Your task to perform on an android device: change the clock display to analog Image 0: 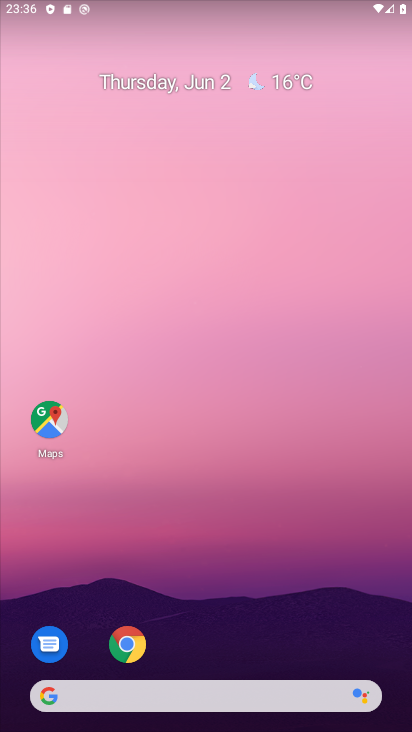
Step 0: drag from (200, 648) to (244, 185)
Your task to perform on an android device: change the clock display to analog Image 1: 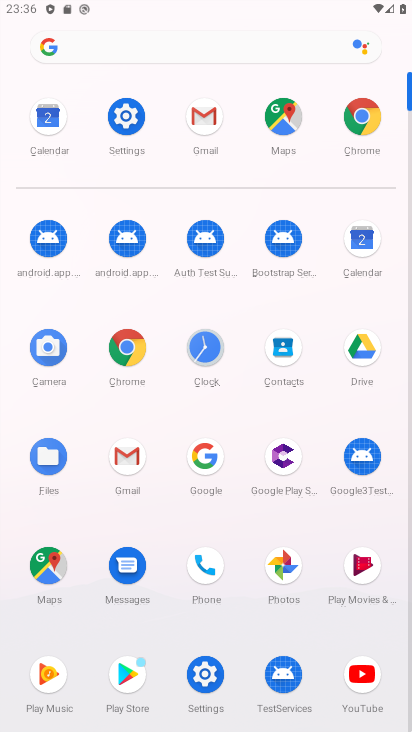
Step 1: click (208, 346)
Your task to perform on an android device: change the clock display to analog Image 2: 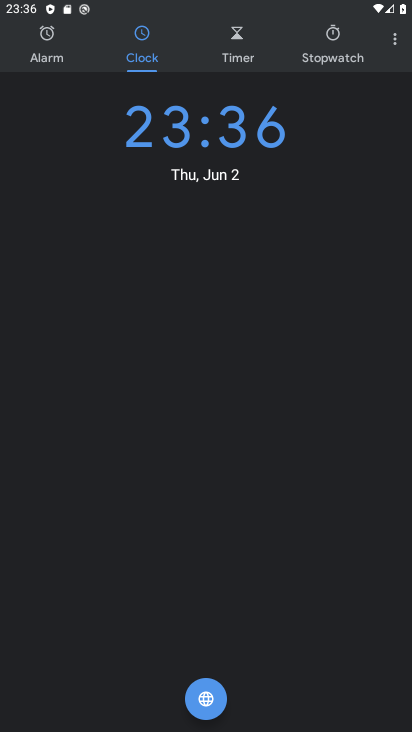
Step 2: click (397, 40)
Your task to perform on an android device: change the clock display to analog Image 3: 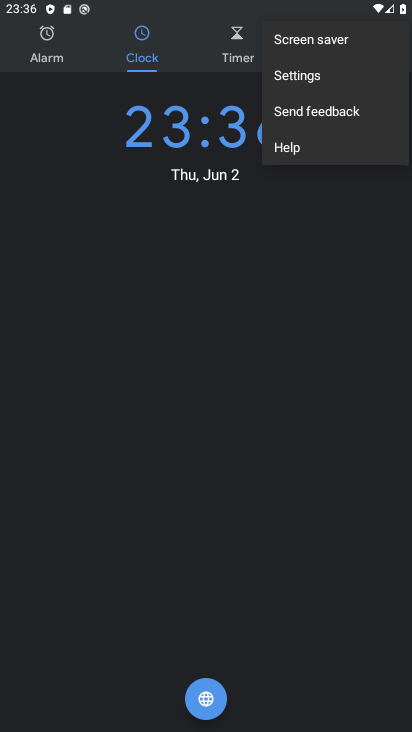
Step 3: click (272, 81)
Your task to perform on an android device: change the clock display to analog Image 4: 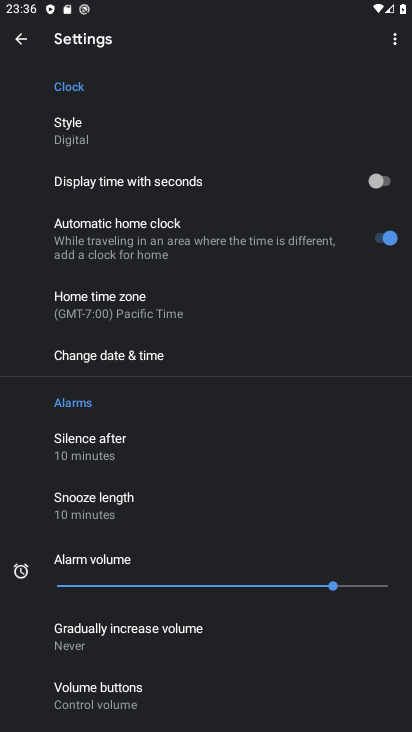
Step 4: click (78, 135)
Your task to perform on an android device: change the clock display to analog Image 5: 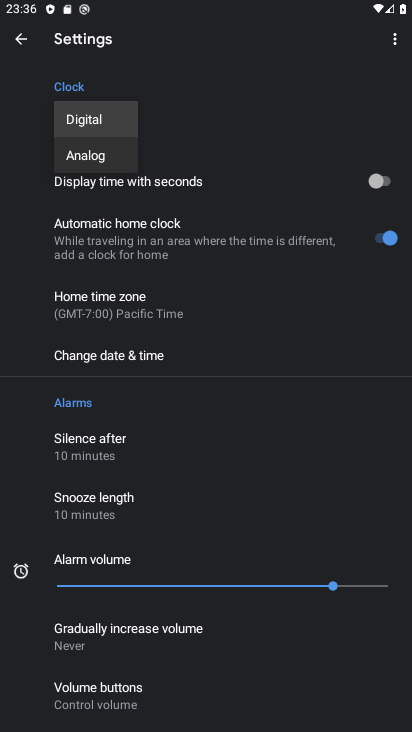
Step 5: click (101, 161)
Your task to perform on an android device: change the clock display to analog Image 6: 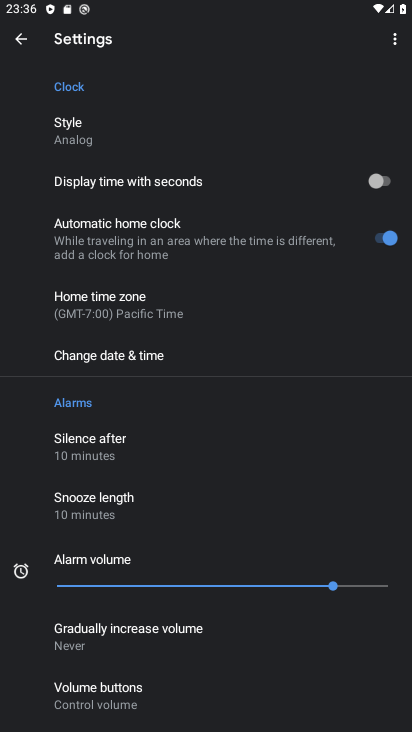
Step 6: task complete